Your task to perform on an android device: snooze an email in the gmail app Image 0: 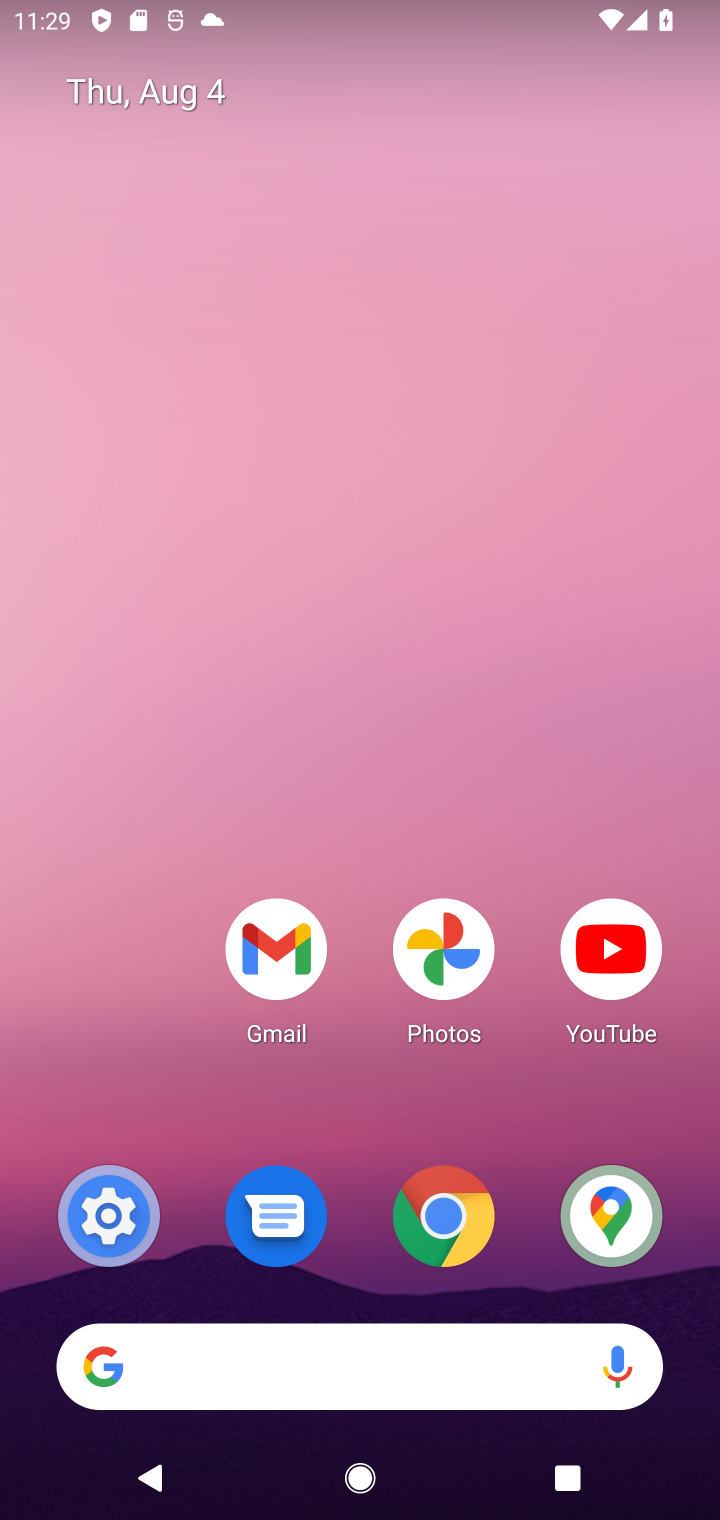
Step 0: drag from (294, 1360) to (388, 303)
Your task to perform on an android device: snooze an email in the gmail app Image 1: 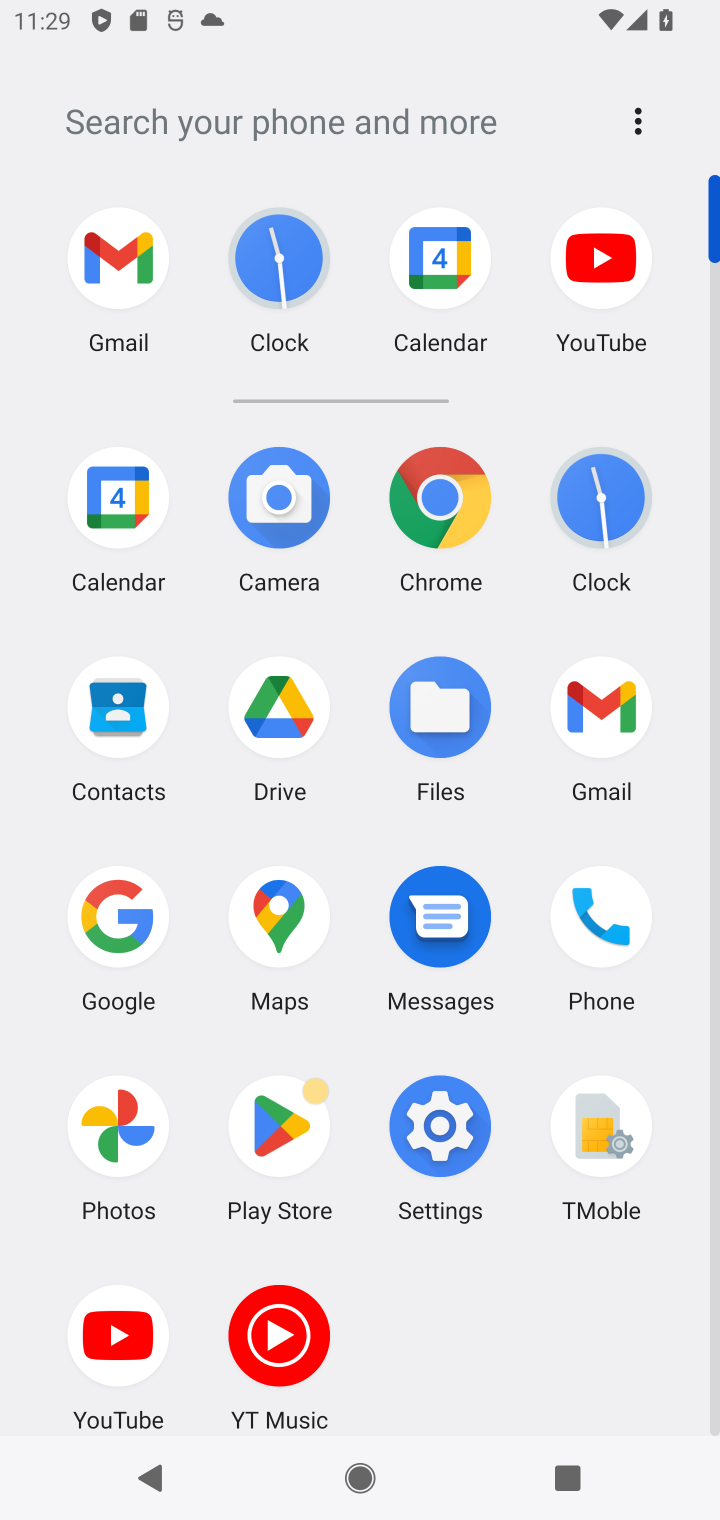
Step 1: click (121, 259)
Your task to perform on an android device: snooze an email in the gmail app Image 2: 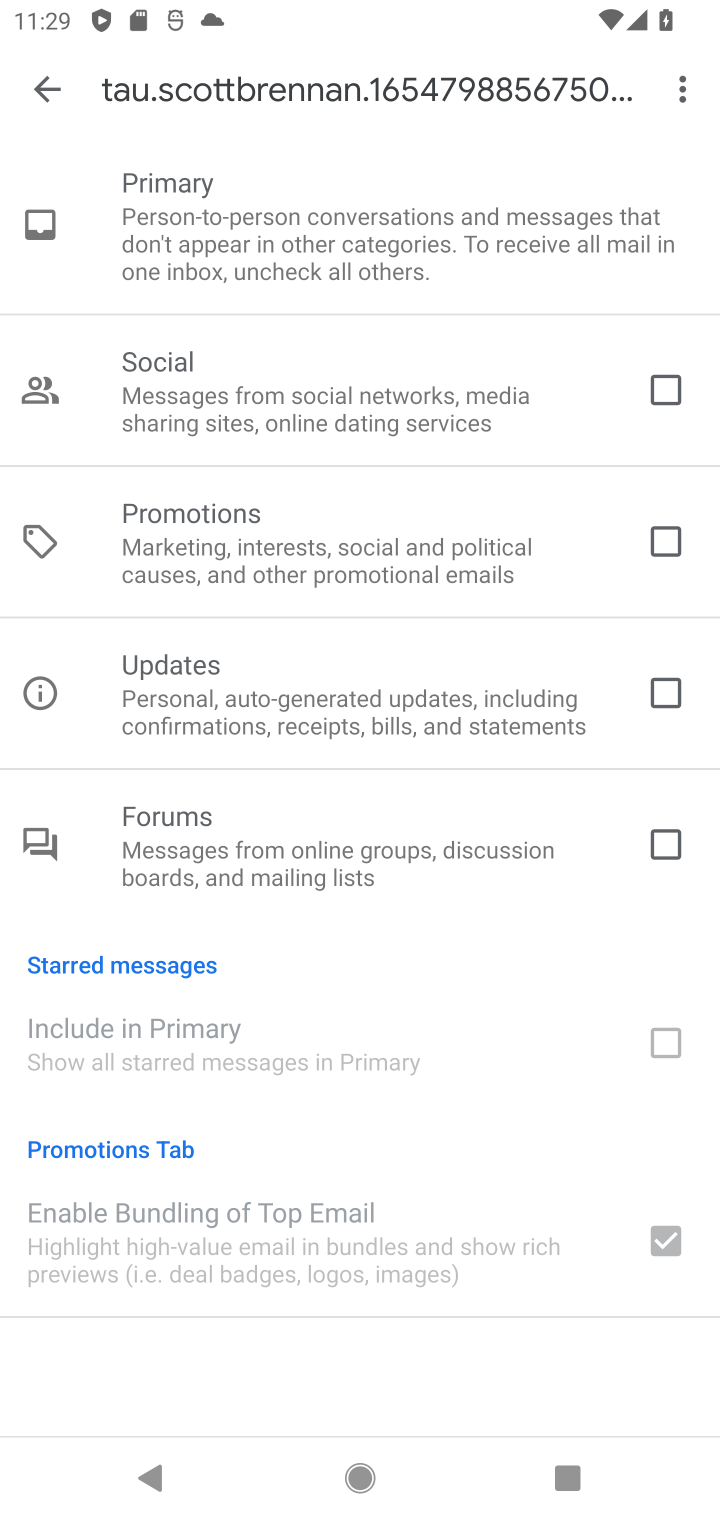
Step 2: press back button
Your task to perform on an android device: snooze an email in the gmail app Image 3: 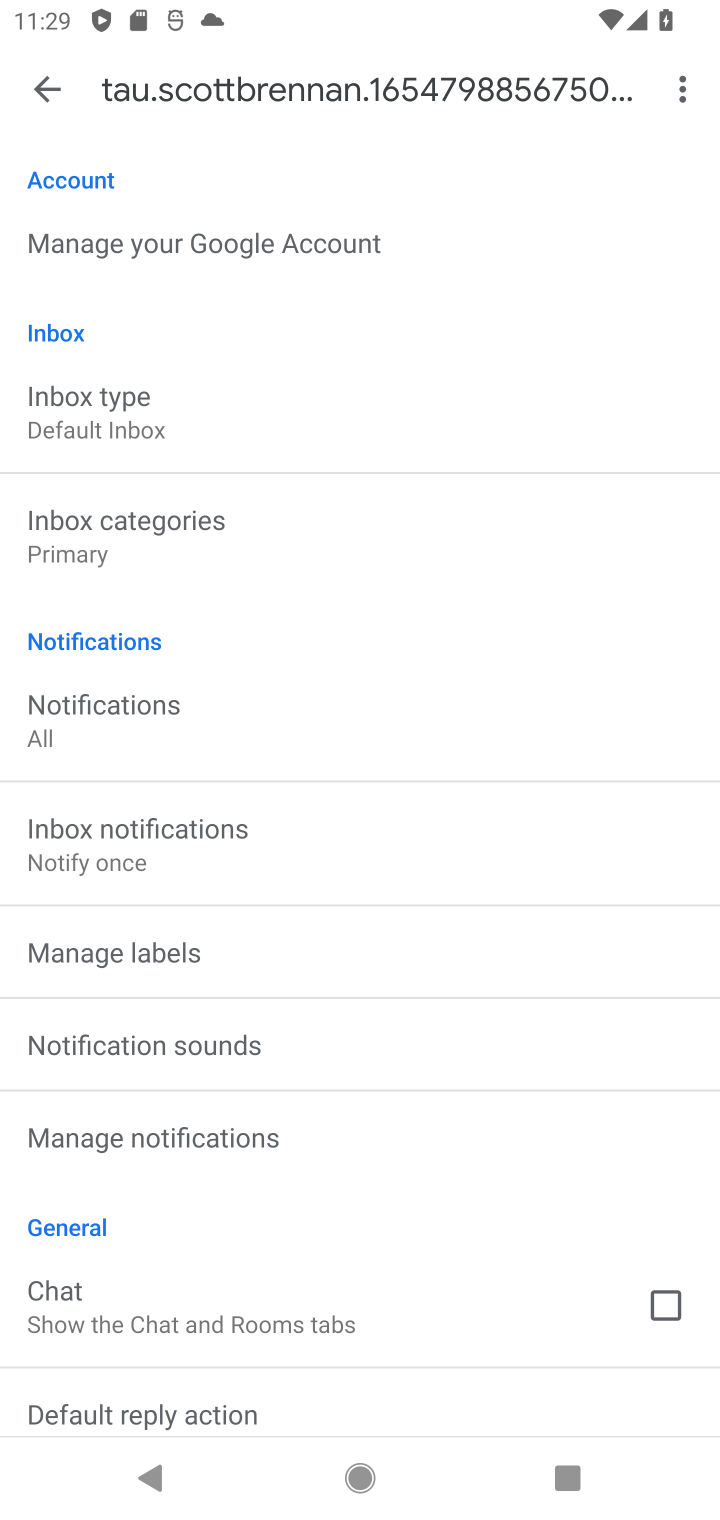
Step 3: press back button
Your task to perform on an android device: snooze an email in the gmail app Image 4: 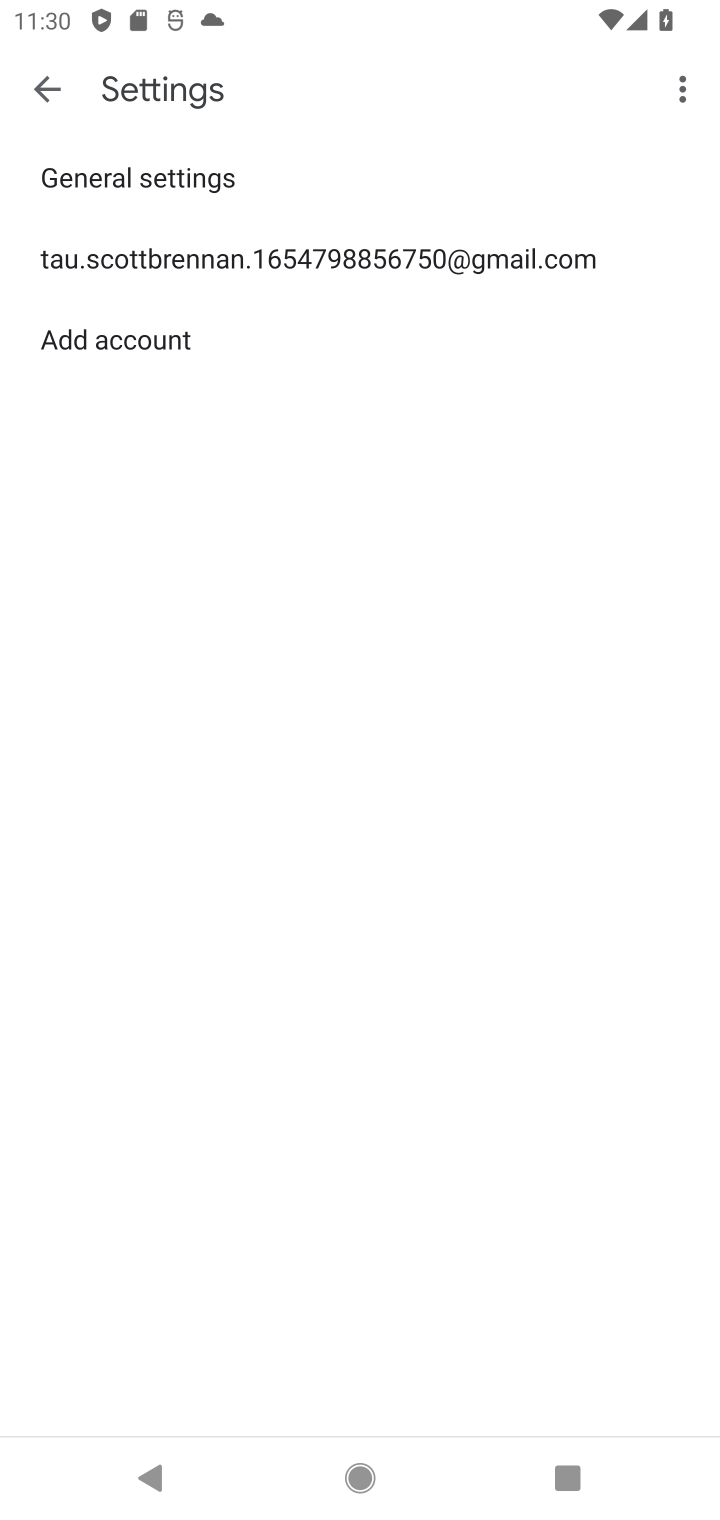
Step 4: press back button
Your task to perform on an android device: snooze an email in the gmail app Image 5: 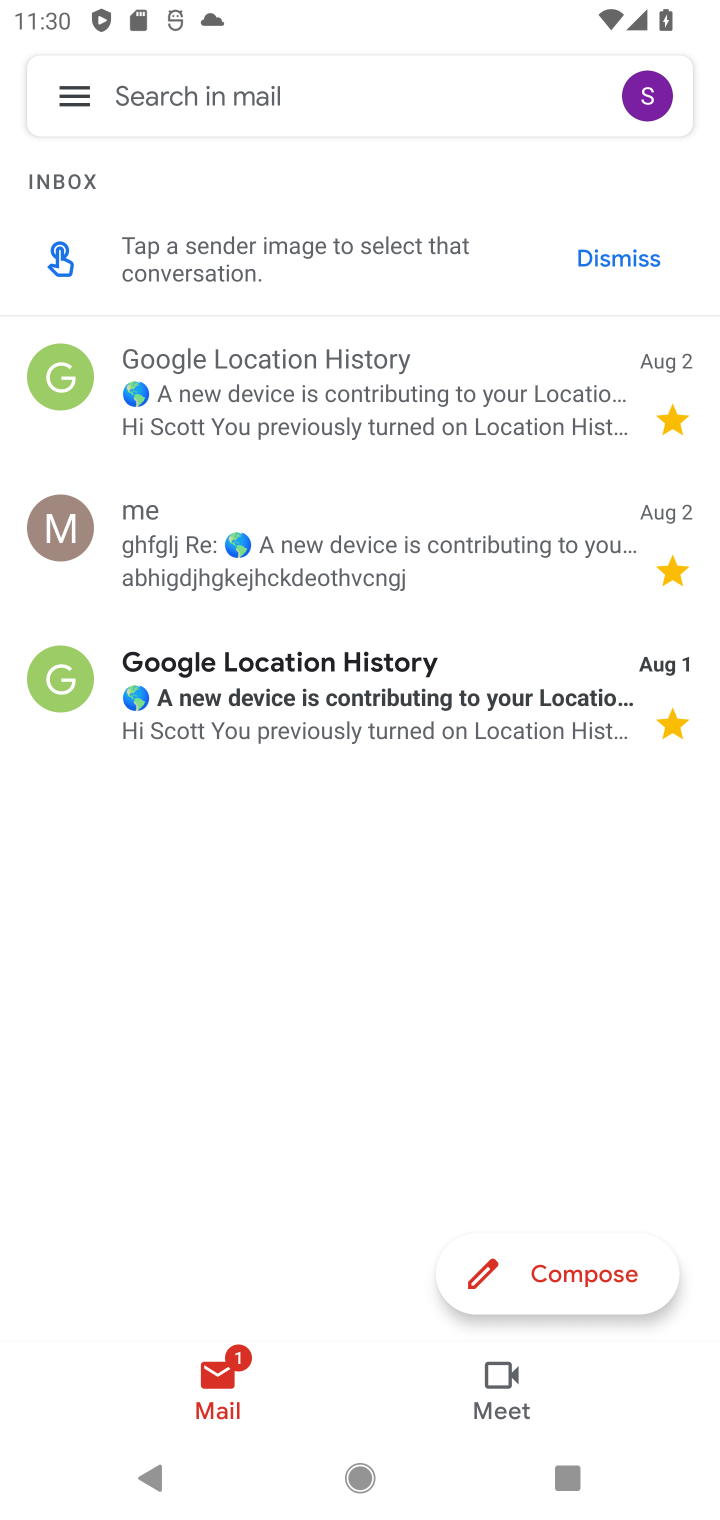
Step 5: click (313, 424)
Your task to perform on an android device: snooze an email in the gmail app Image 6: 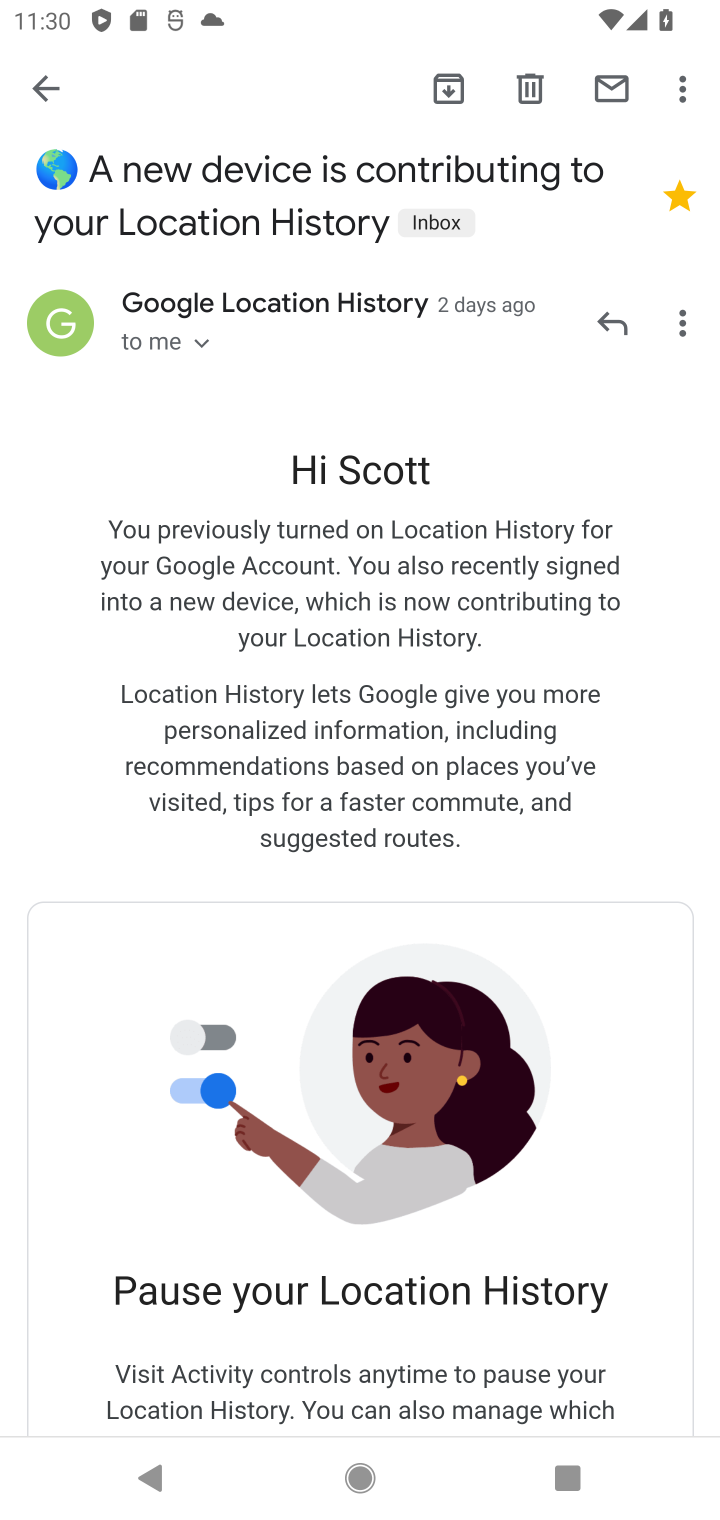
Step 6: click (682, 97)
Your task to perform on an android device: snooze an email in the gmail app Image 7: 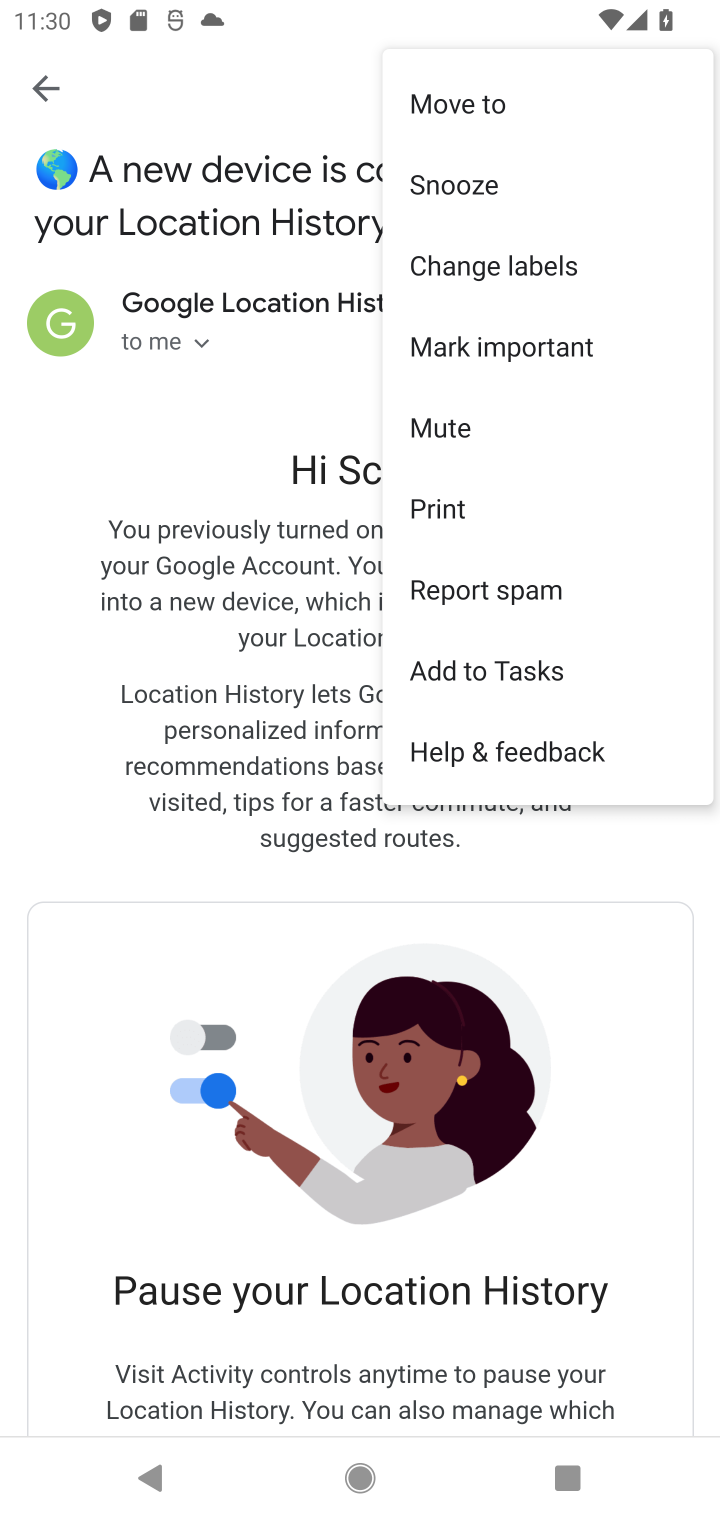
Step 7: click (481, 205)
Your task to perform on an android device: snooze an email in the gmail app Image 8: 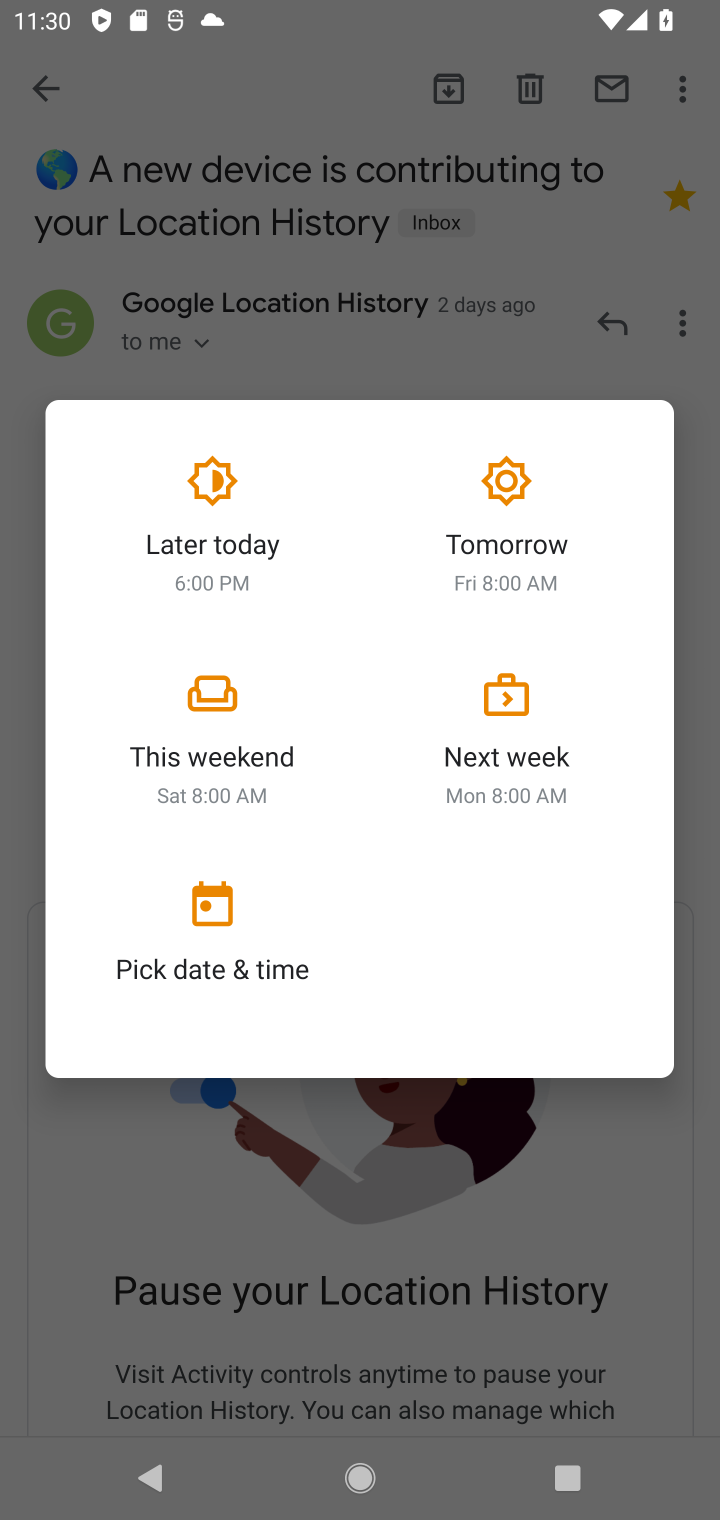
Step 8: click (222, 536)
Your task to perform on an android device: snooze an email in the gmail app Image 9: 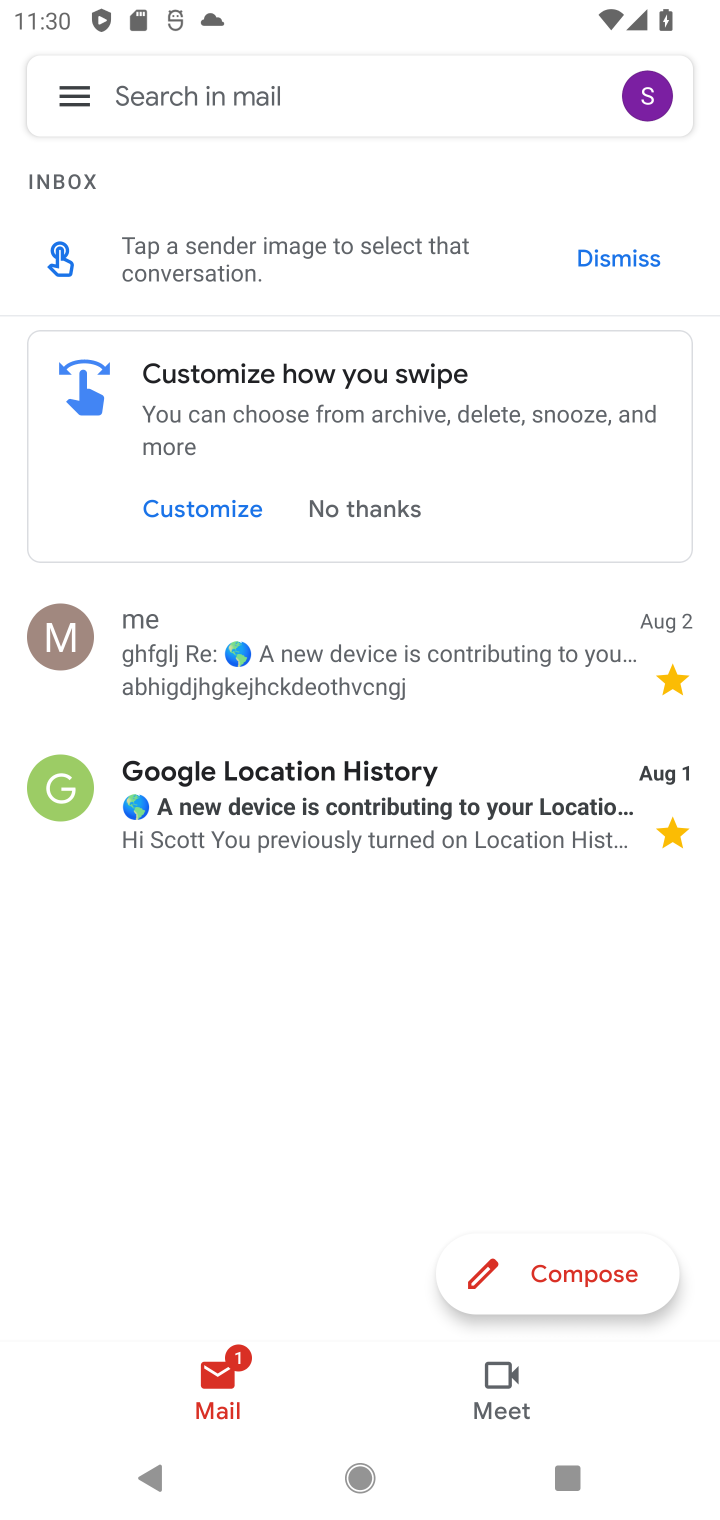
Step 9: task complete